Your task to perform on an android device: Open the calendar app, open the side menu, and click the "Day" option Image 0: 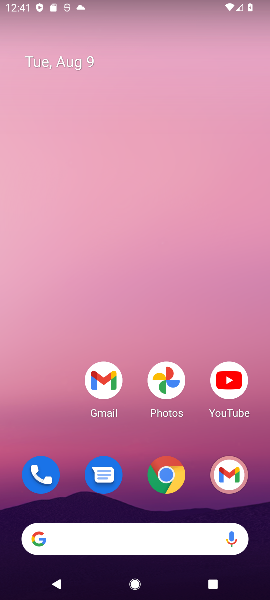
Step 0: drag from (137, 447) to (205, 1)
Your task to perform on an android device: Open the calendar app, open the side menu, and click the "Day" option Image 1: 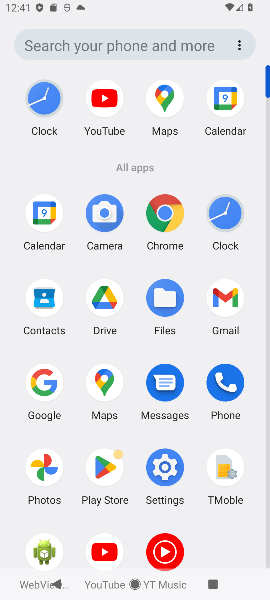
Step 1: click (237, 106)
Your task to perform on an android device: Open the calendar app, open the side menu, and click the "Day" option Image 2: 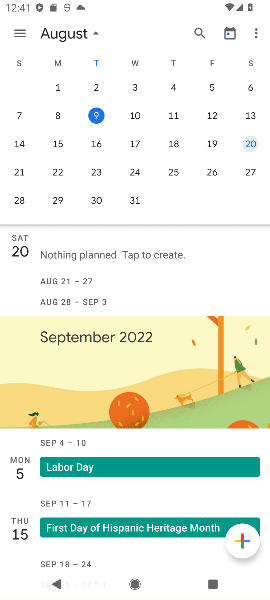
Step 2: click (22, 33)
Your task to perform on an android device: Open the calendar app, open the side menu, and click the "Day" option Image 3: 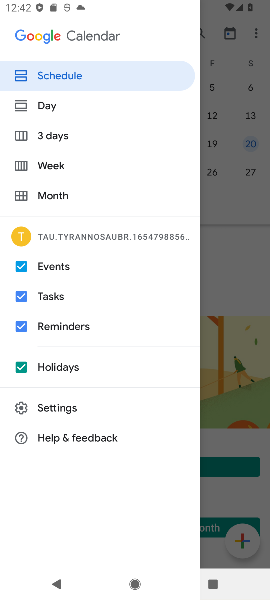
Step 3: click (36, 103)
Your task to perform on an android device: Open the calendar app, open the side menu, and click the "Day" option Image 4: 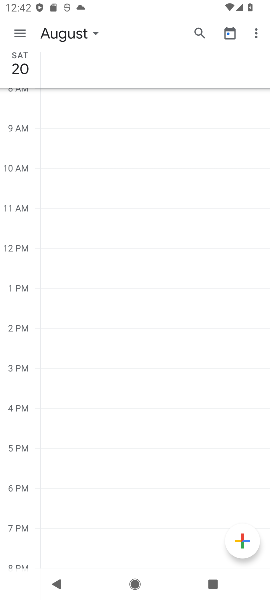
Step 4: task complete